Your task to perform on an android device: toggle sleep mode Image 0: 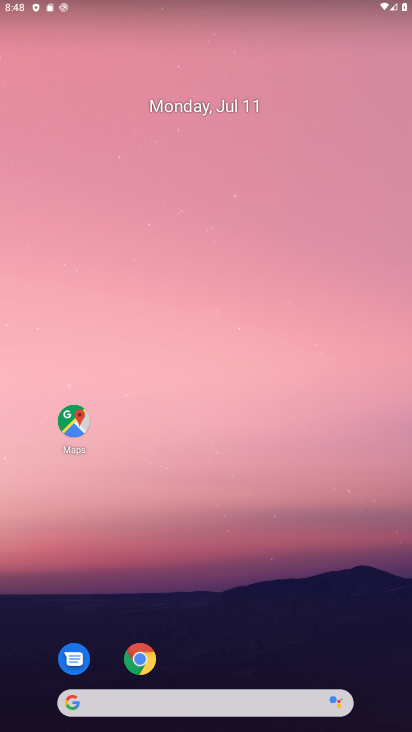
Step 0: drag from (187, 661) to (180, 98)
Your task to perform on an android device: toggle sleep mode Image 1: 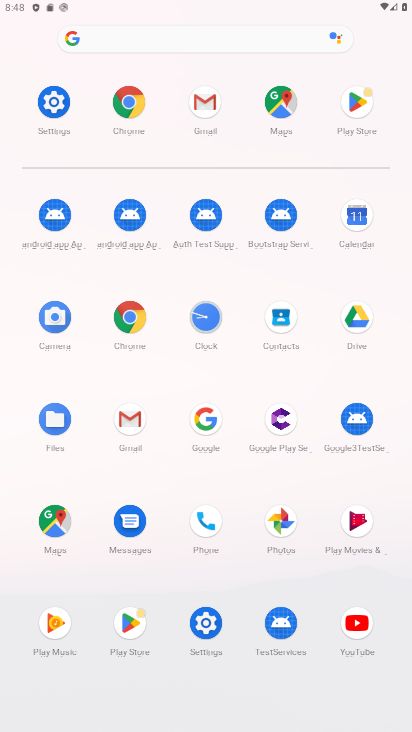
Step 1: click (55, 101)
Your task to perform on an android device: toggle sleep mode Image 2: 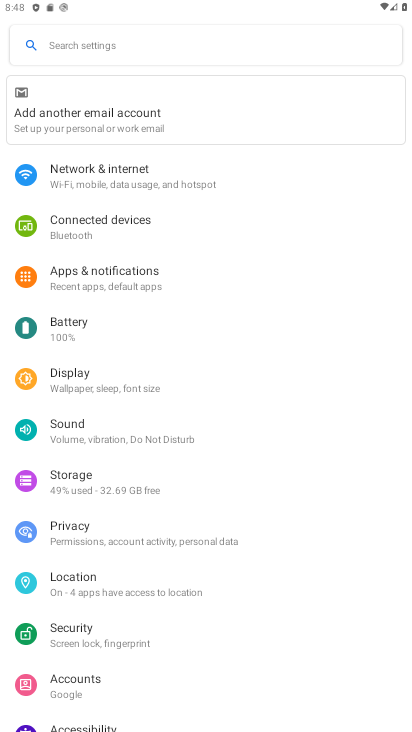
Step 2: click (108, 391)
Your task to perform on an android device: toggle sleep mode Image 3: 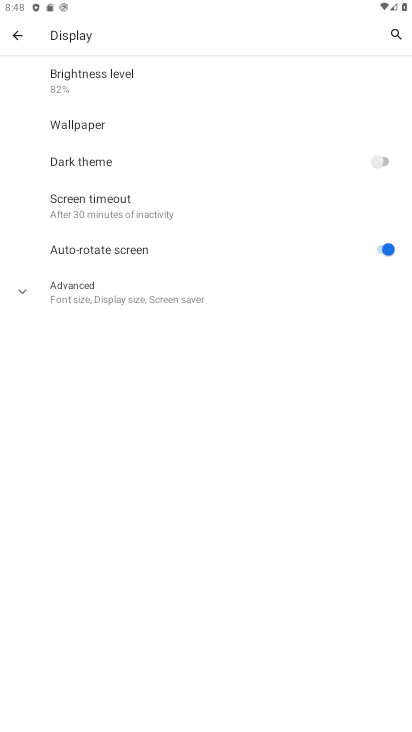
Step 3: click (22, 33)
Your task to perform on an android device: toggle sleep mode Image 4: 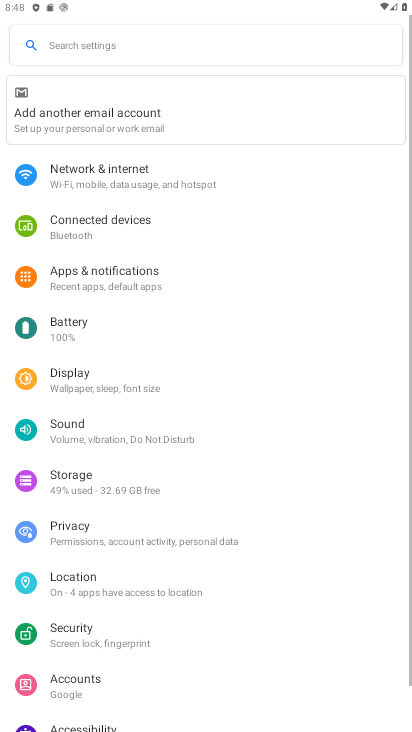
Step 4: task complete